Your task to perform on an android device: change the clock style Image 0: 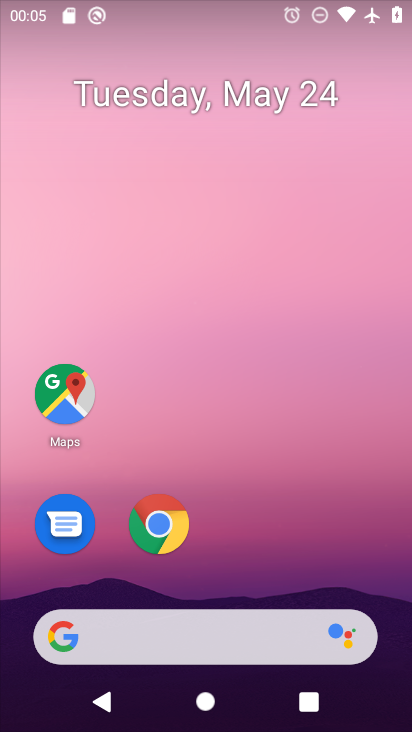
Step 0: drag from (196, 573) to (170, 212)
Your task to perform on an android device: change the clock style Image 1: 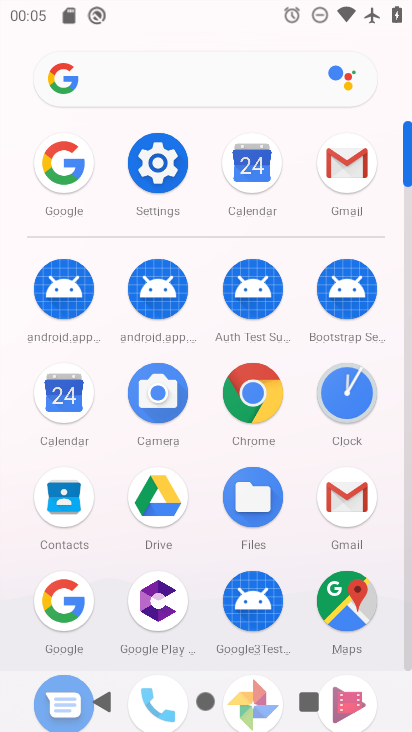
Step 1: click (337, 407)
Your task to perform on an android device: change the clock style Image 2: 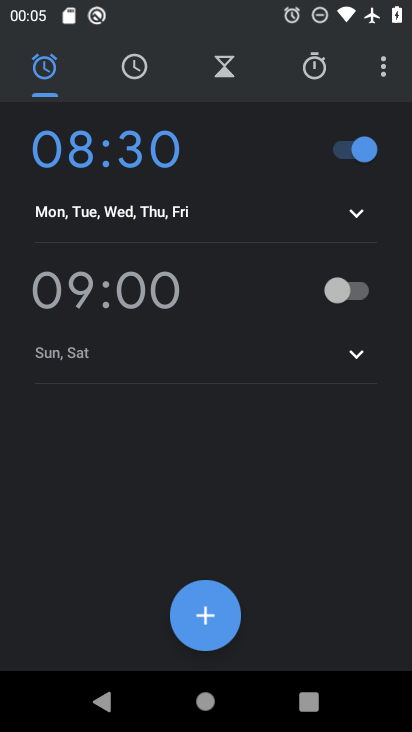
Step 2: click (374, 69)
Your task to perform on an android device: change the clock style Image 3: 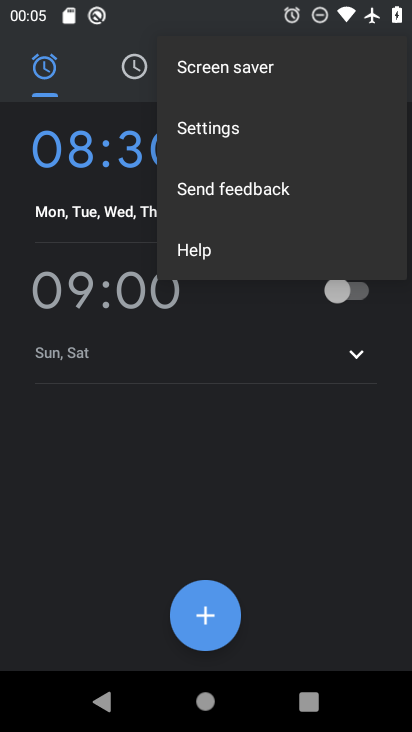
Step 3: click (239, 129)
Your task to perform on an android device: change the clock style Image 4: 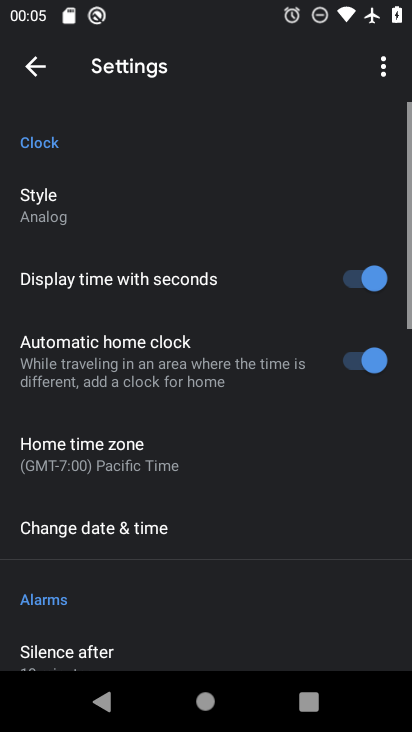
Step 4: click (133, 207)
Your task to perform on an android device: change the clock style Image 5: 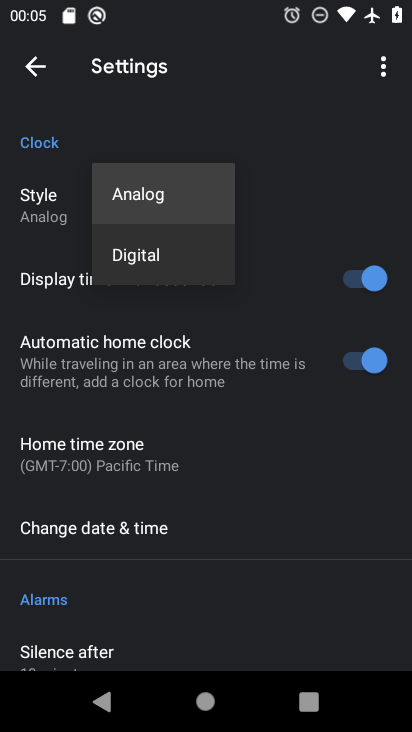
Step 5: click (126, 236)
Your task to perform on an android device: change the clock style Image 6: 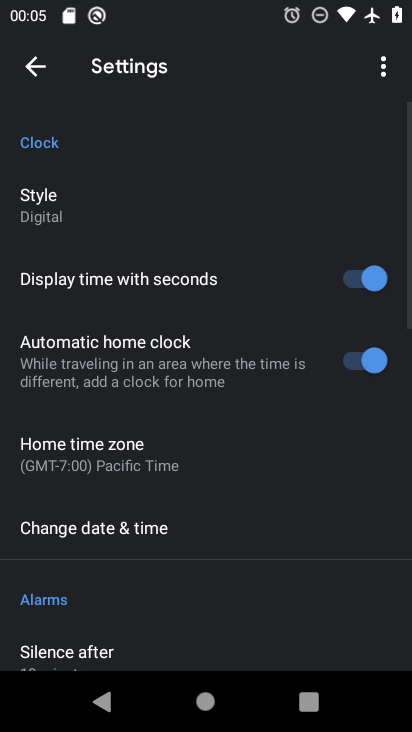
Step 6: task complete